Your task to perform on an android device: check android version Image 0: 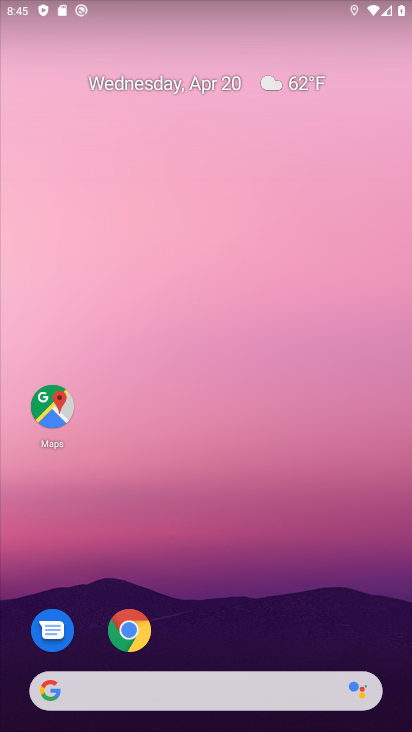
Step 0: drag from (207, 639) to (305, 87)
Your task to perform on an android device: check android version Image 1: 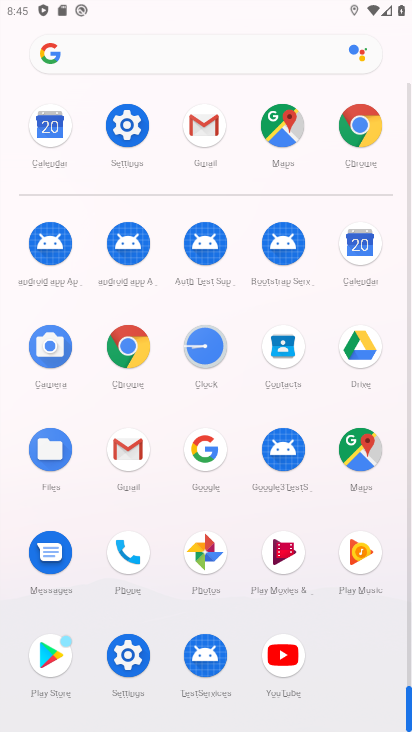
Step 1: click (128, 139)
Your task to perform on an android device: check android version Image 2: 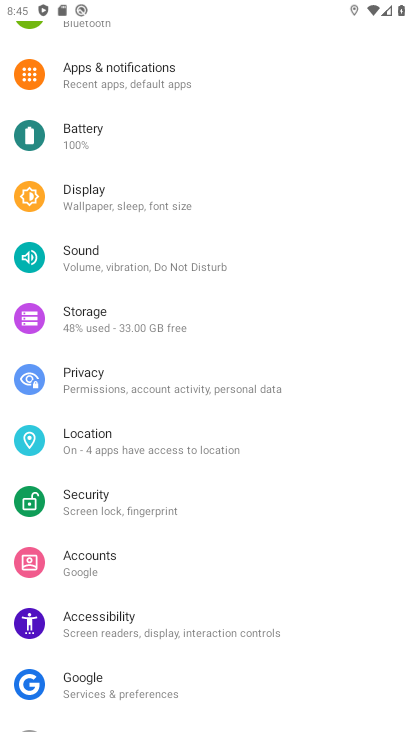
Step 2: drag from (113, 673) to (224, 107)
Your task to perform on an android device: check android version Image 3: 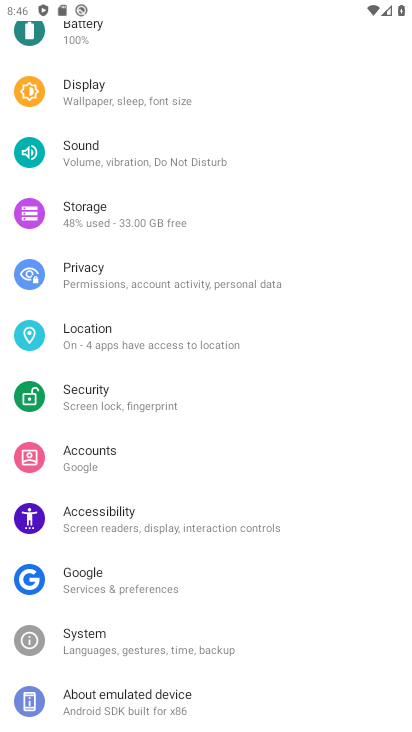
Step 3: click (145, 688)
Your task to perform on an android device: check android version Image 4: 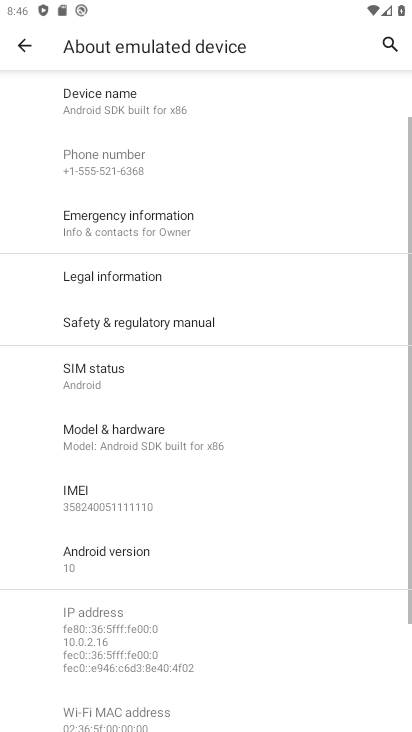
Step 4: click (101, 566)
Your task to perform on an android device: check android version Image 5: 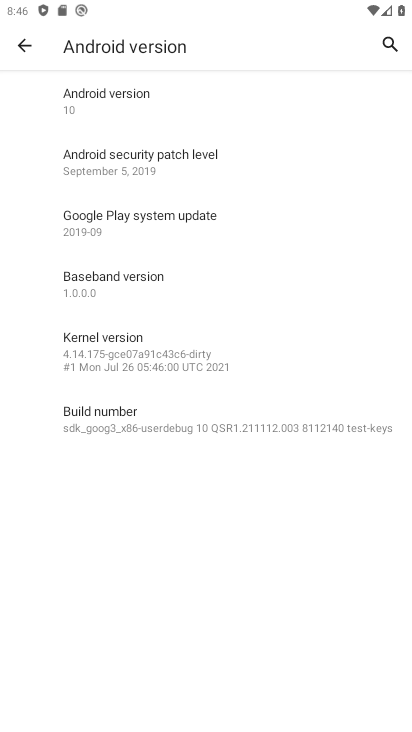
Step 5: click (97, 103)
Your task to perform on an android device: check android version Image 6: 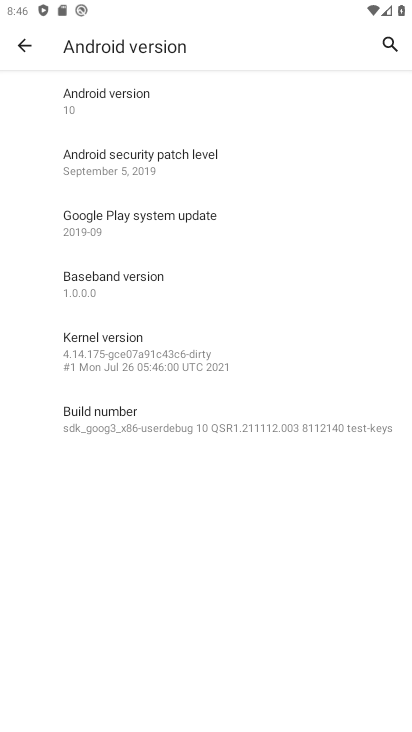
Step 6: click (85, 112)
Your task to perform on an android device: check android version Image 7: 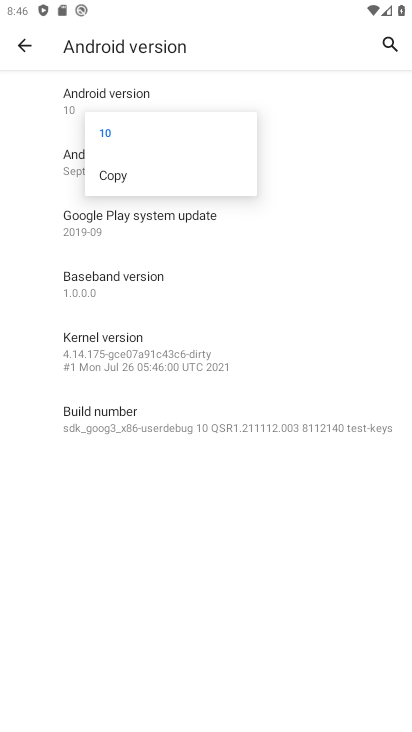
Step 7: click (85, 111)
Your task to perform on an android device: check android version Image 8: 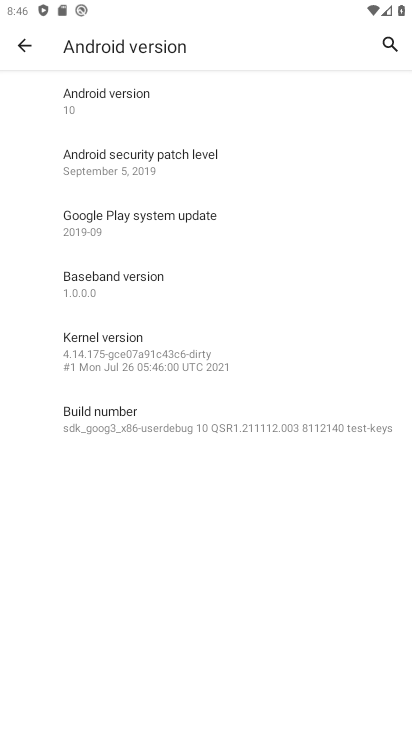
Step 8: task complete